Your task to perform on an android device: turn on data saver in the chrome app Image 0: 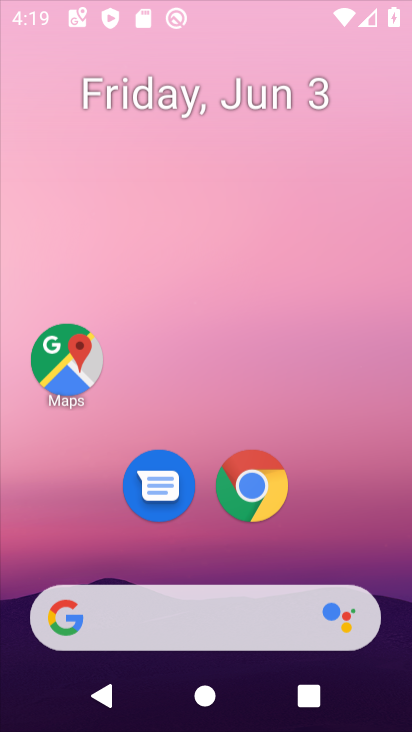
Step 0: click (409, 457)
Your task to perform on an android device: turn on data saver in the chrome app Image 1: 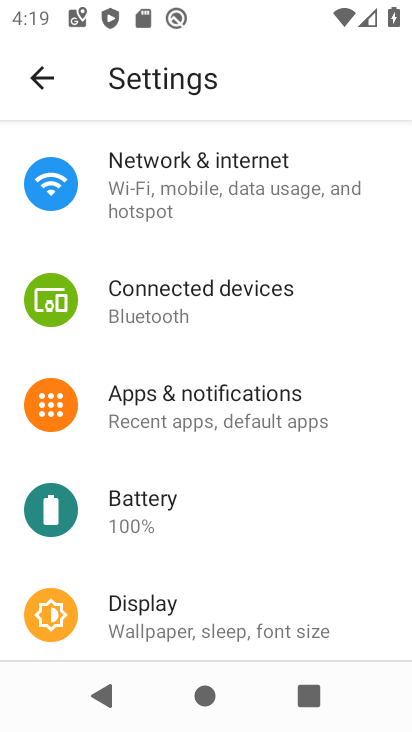
Step 1: drag from (121, 496) to (247, 144)
Your task to perform on an android device: turn on data saver in the chrome app Image 2: 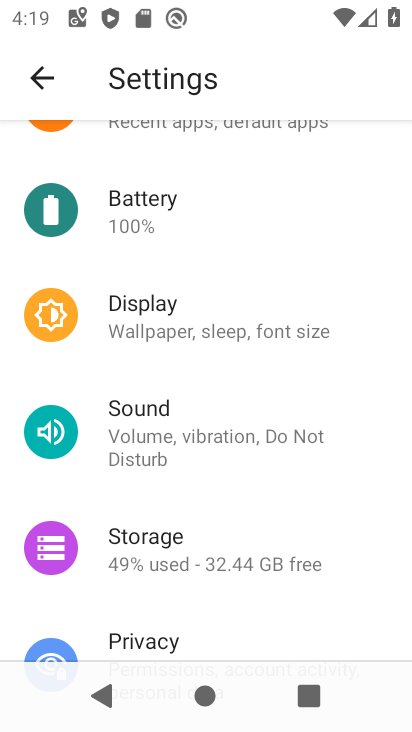
Step 2: press home button
Your task to perform on an android device: turn on data saver in the chrome app Image 3: 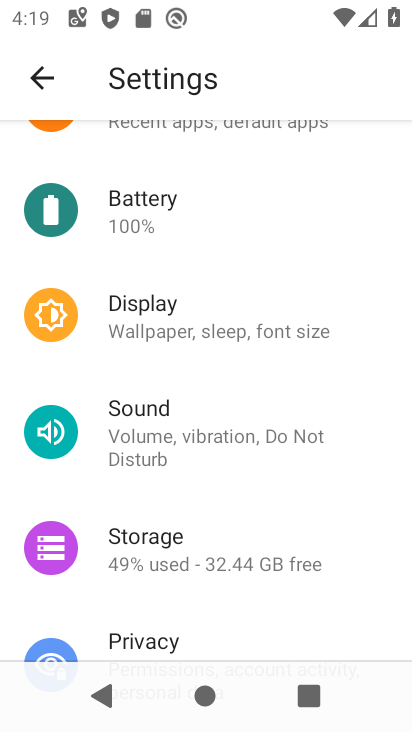
Step 3: drag from (322, 549) to (379, 4)
Your task to perform on an android device: turn on data saver in the chrome app Image 4: 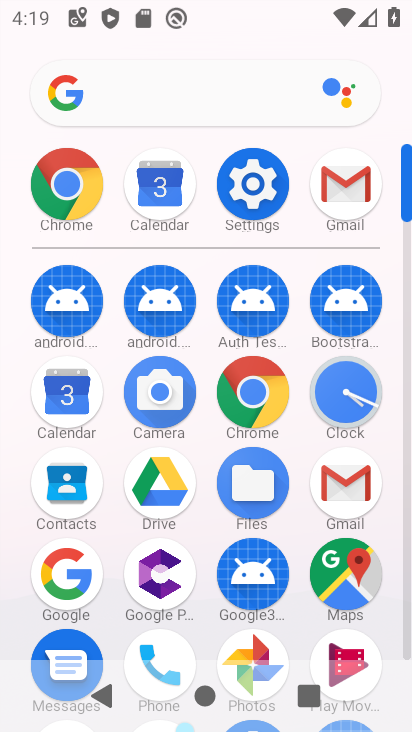
Step 4: click (243, 387)
Your task to perform on an android device: turn on data saver in the chrome app Image 5: 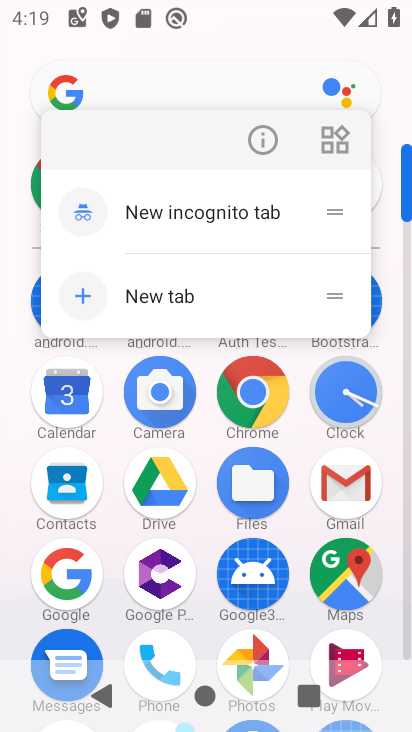
Step 5: click (271, 142)
Your task to perform on an android device: turn on data saver in the chrome app Image 6: 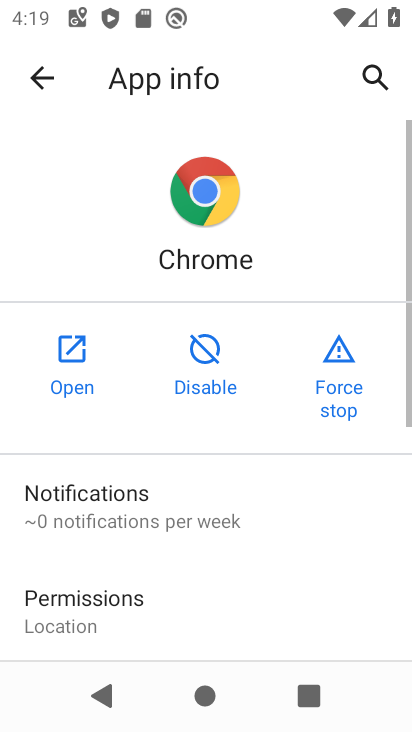
Step 6: click (67, 352)
Your task to perform on an android device: turn on data saver in the chrome app Image 7: 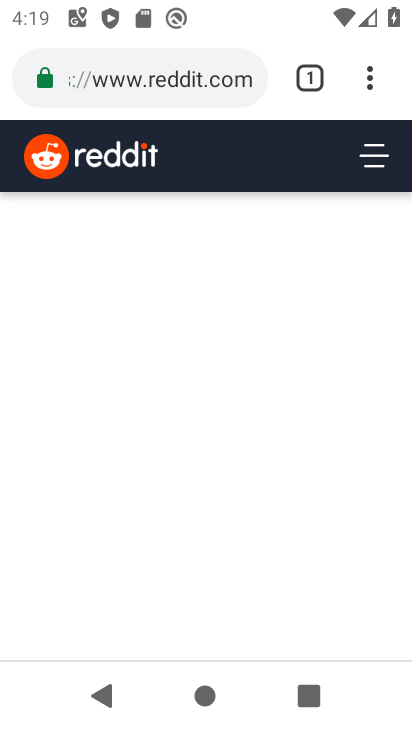
Step 7: drag from (209, 489) to (211, 202)
Your task to perform on an android device: turn on data saver in the chrome app Image 8: 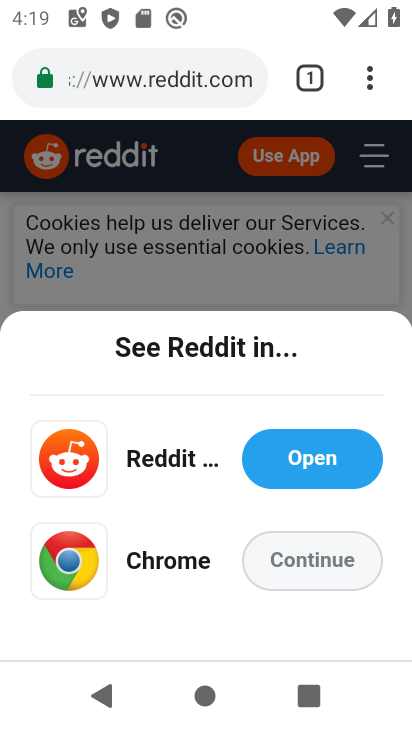
Step 8: drag from (242, 295) to (321, 668)
Your task to perform on an android device: turn on data saver in the chrome app Image 9: 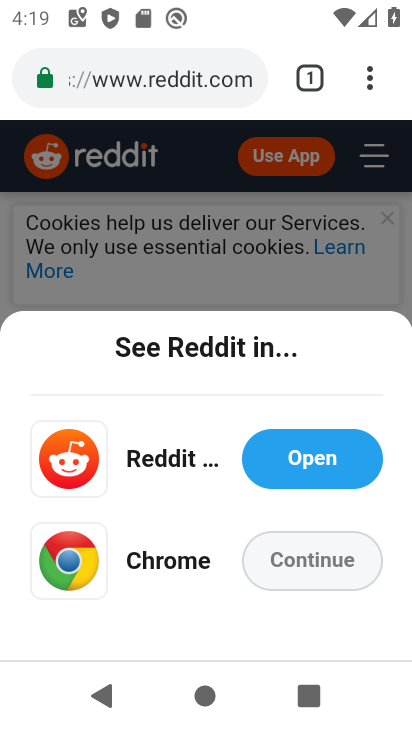
Step 9: click (362, 78)
Your task to perform on an android device: turn on data saver in the chrome app Image 10: 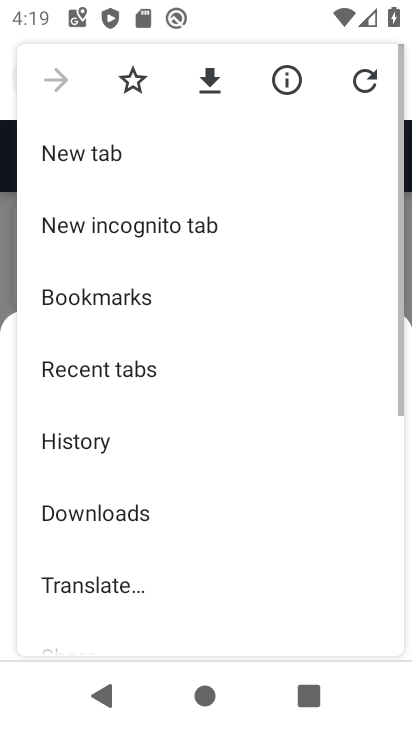
Step 10: drag from (184, 504) to (281, 19)
Your task to perform on an android device: turn on data saver in the chrome app Image 11: 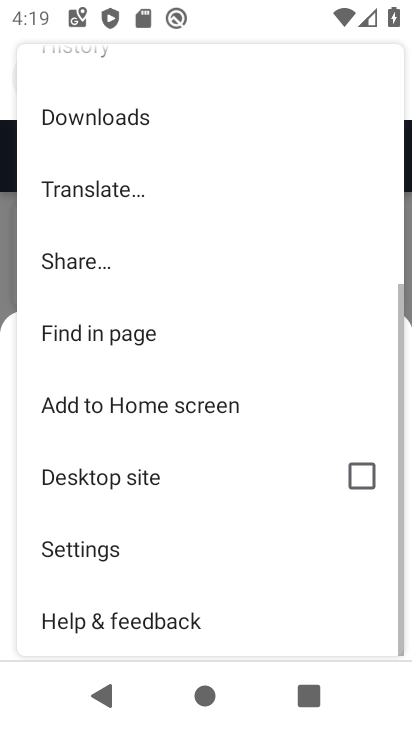
Step 11: click (154, 552)
Your task to perform on an android device: turn on data saver in the chrome app Image 12: 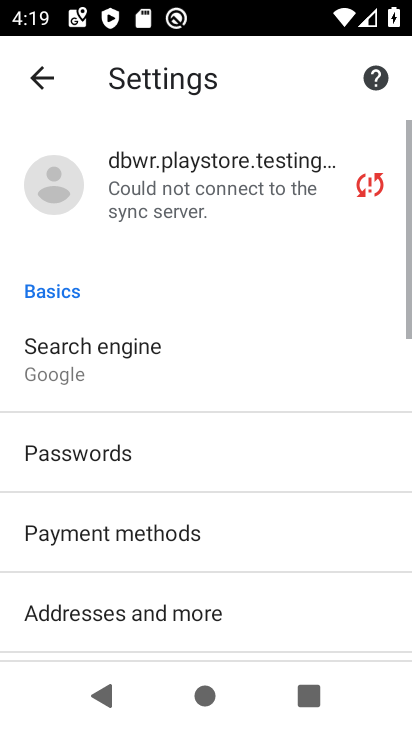
Step 12: drag from (157, 549) to (294, 0)
Your task to perform on an android device: turn on data saver in the chrome app Image 13: 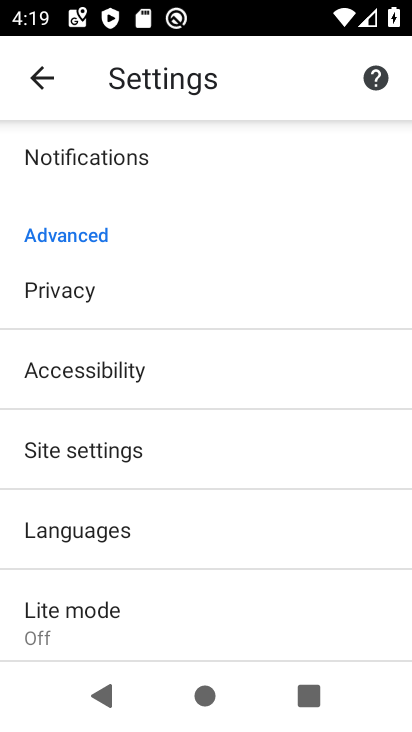
Step 13: drag from (212, 587) to (309, 50)
Your task to perform on an android device: turn on data saver in the chrome app Image 14: 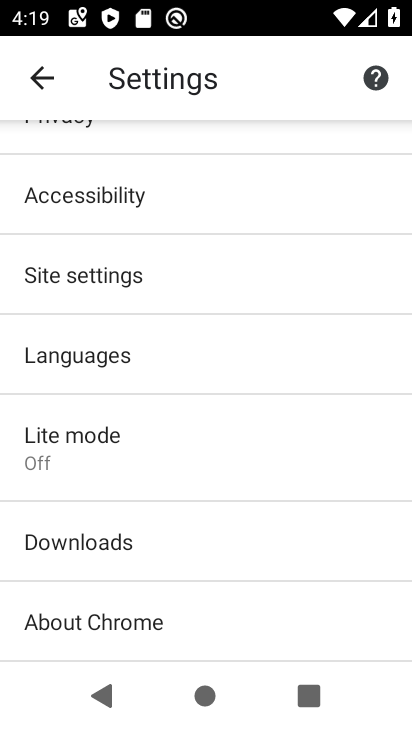
Step 14: drag from (169, 572) to (244, 204)
Your task to perform on an android device: turn on data saver in the chrome app Image 15: 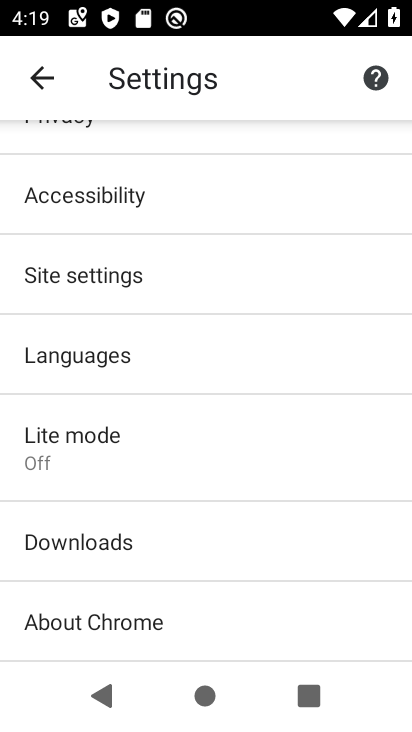
Step 15: click (124, 440)
Your task to perform on an android device: turn on data saver in the chrome app Image 16: 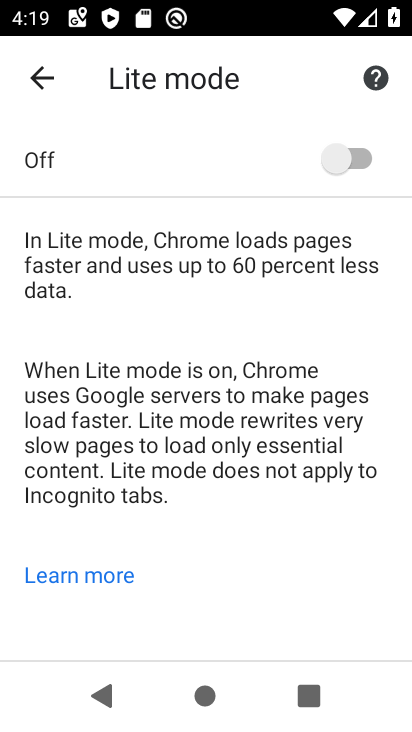
Step 16: click (329, 151)
Your task to perform on an android device: turn on data saver in the chrome app Image 17: 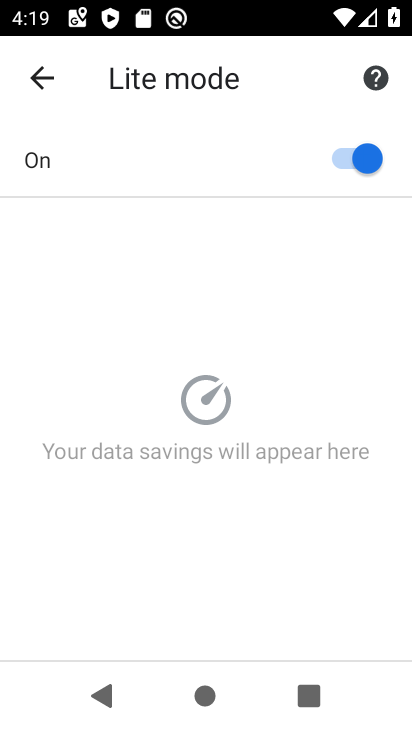
Step 17: task complete